Your task to perform on an android device: set default search engine in the chrome app Image 0: 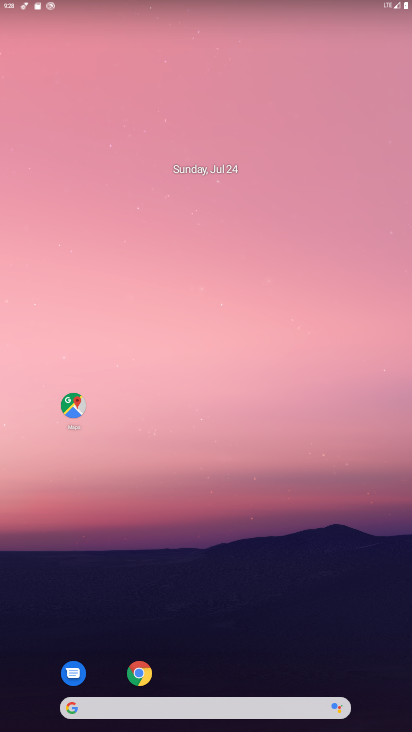
Step 0: drag from (225, 653) to (265, 282)
Your task to perform on an android device: set default search engine in the chrome app Image 1: 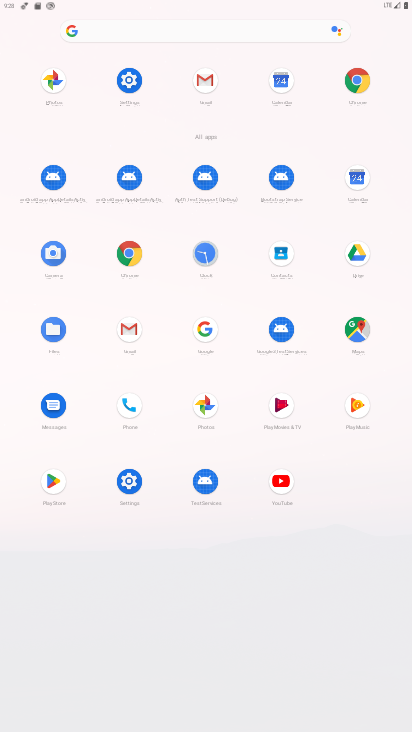
Step 1: click (131, 260)
Your task to perform on an android device: set default search engine in the chrome app Image 2: 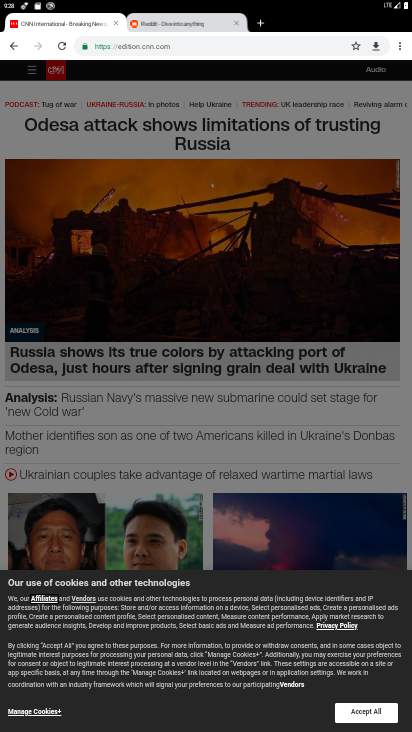
Step 2: click (399, 46)
Your task to perform on an android device: set default search engine in the chrome app Image 3: 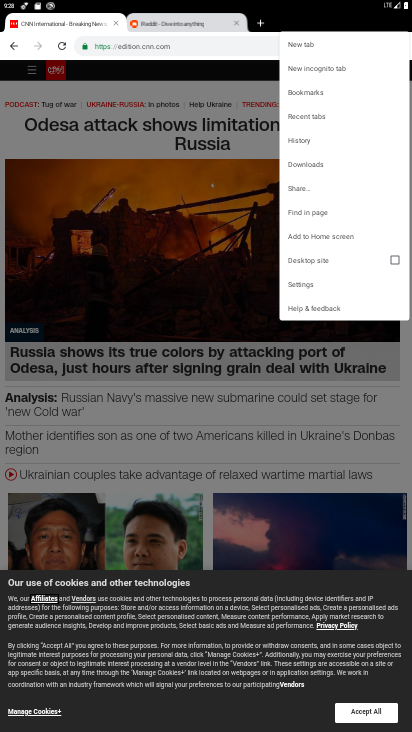
Step 3: click (303, 285)
Your task to perform on an android device: set default search engine in the chrome app Image 4: 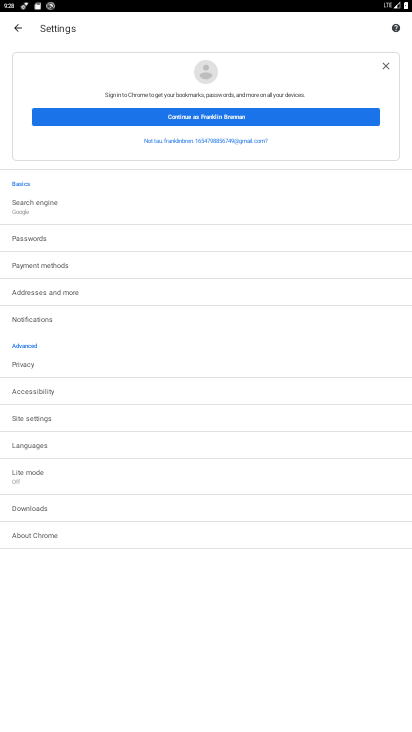
Step 4: click (35, 206)
Your task to perform on an android device: set default search engine in the chrome app Image 5: 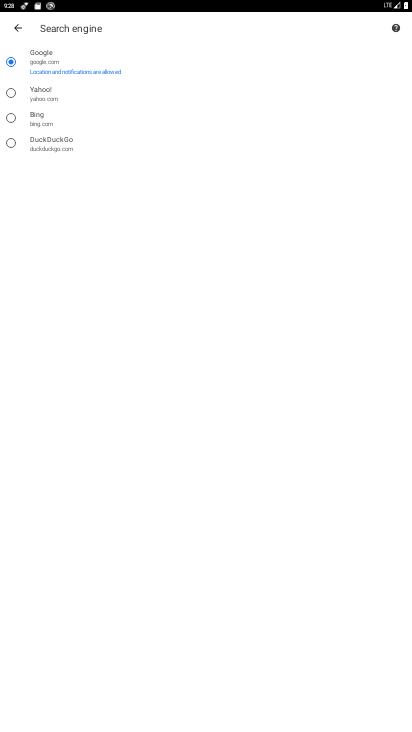
Step 5: click (54, 71)
Your task to perform on an android device: set default search engine in the chrome app Image 6: 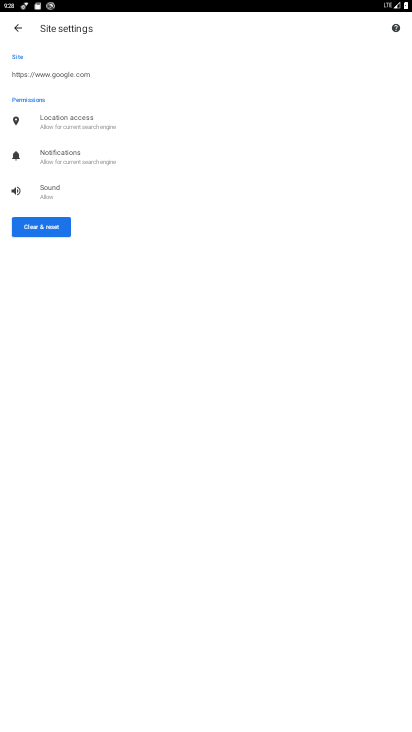
Step 6: click (50, 225)
Your task to perform on an android device: set default search engine in the chrome app Image 7: 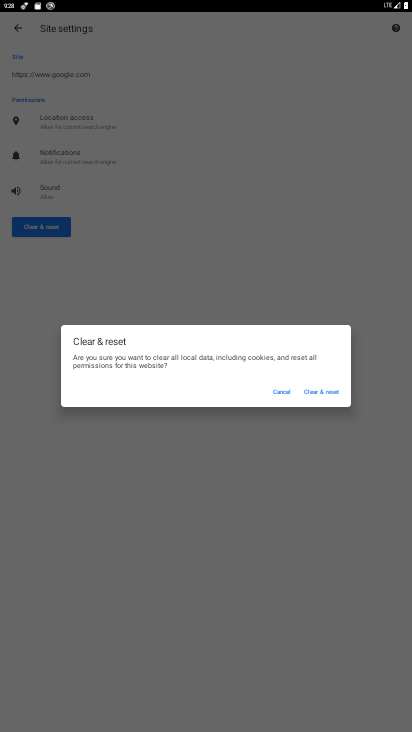
Step 7: click (324, 390)
Your task to perform on an android device: set default search engine in the chrome app Image 8: 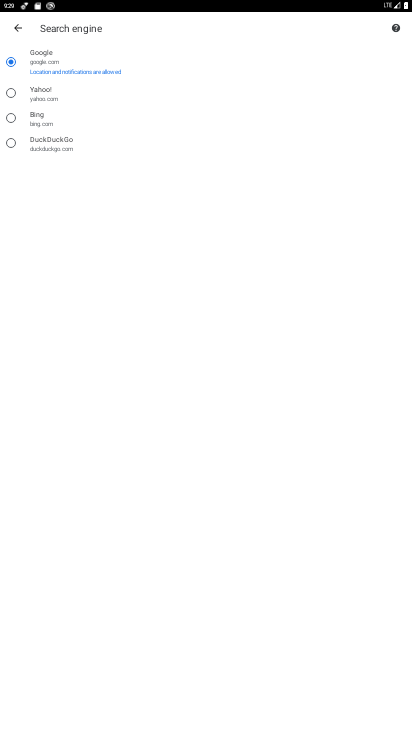
Step 8: task complete